Your task to perform on an android device: change the clock display to digital Image 0: 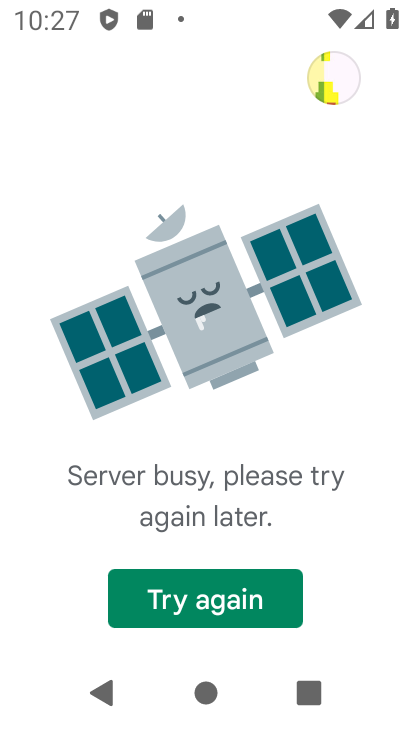
Step 0: press home button
Your task to perform on an android device: change the clock display to digital Image 1: 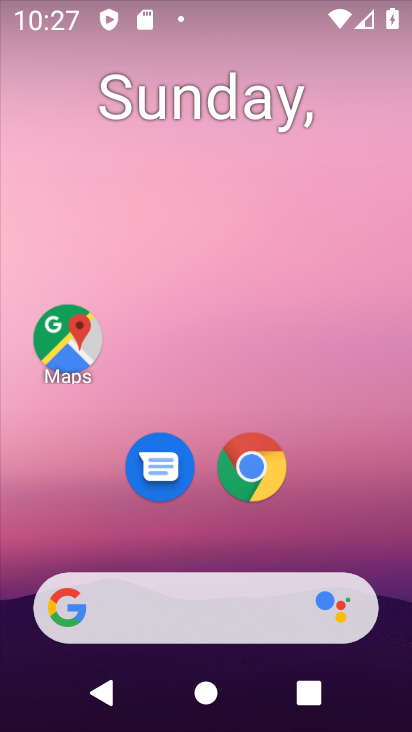
Step 1: drag from (205, 538) to (208, 81)
Your task to perform on an android device: change the clock display to digital Image 2: 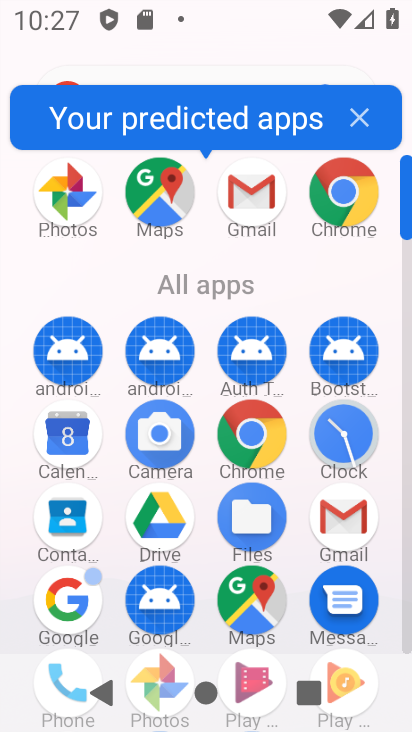
Step 2: click (332, 428)
Your task to perform on an android device: change the clock display to digital Image 3: 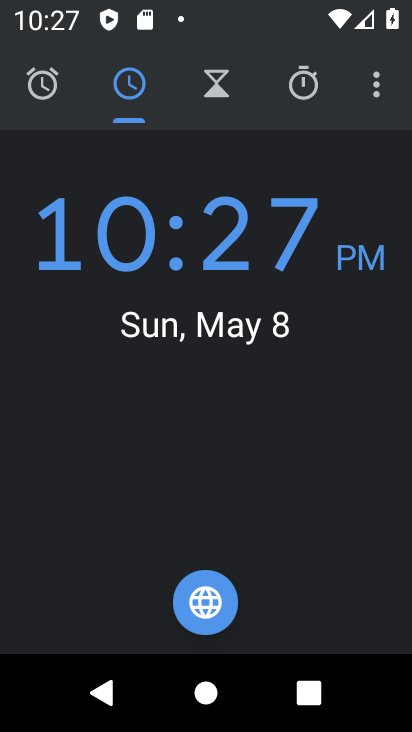
Step 3: click (379, 64)
Your task to perform on an android device: change the clock display to digital Image 4: 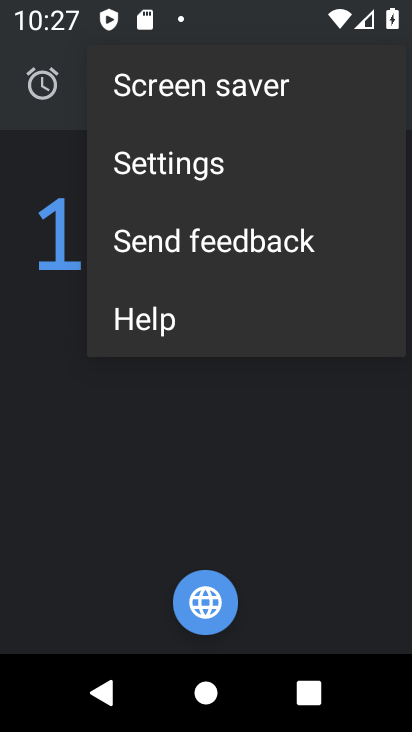
Step 4: click (251, 154)
Your task to perform on an android device: change the clock display to digital Image 5: 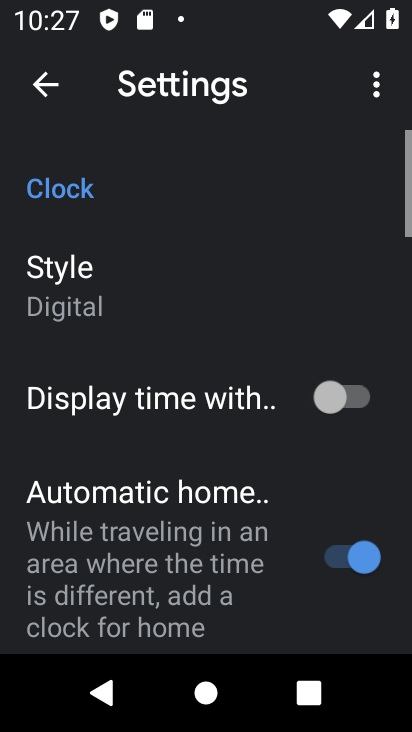
Step 5: click (197, 277)
Your task to perform on an android device: change the clock display to digital Image 6: 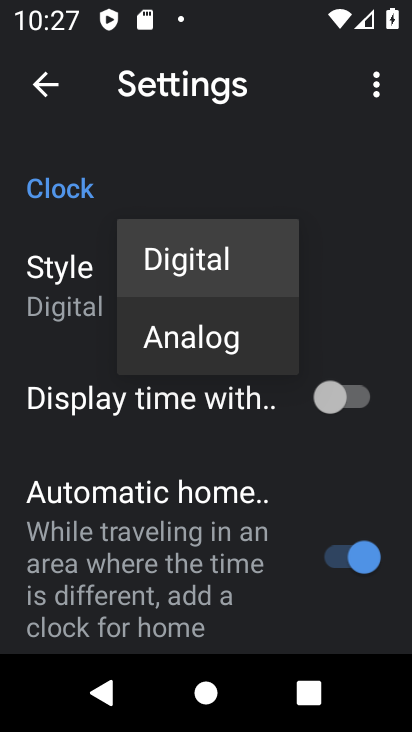
Step 6: task complete